Your task to perform on an android device: turn vacation reply on in the gmail app Image 0: 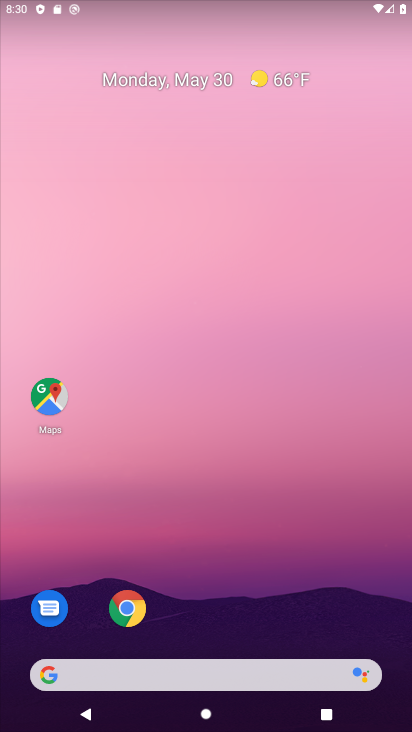
Step 0: drag from (234, 721) to (237, 23)
Your task to perform on an android device: turn vacation reply on in the gmail app Image 1: 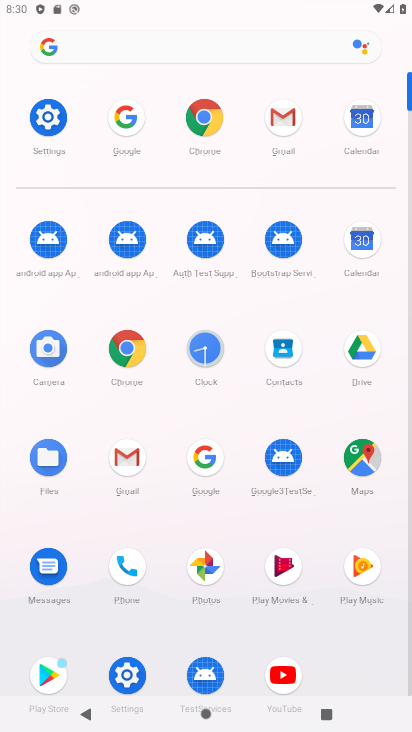
Step 1: click (128, 457)
Your task to perform on an android device: turn vacation reply on in the gmail app Image 2: 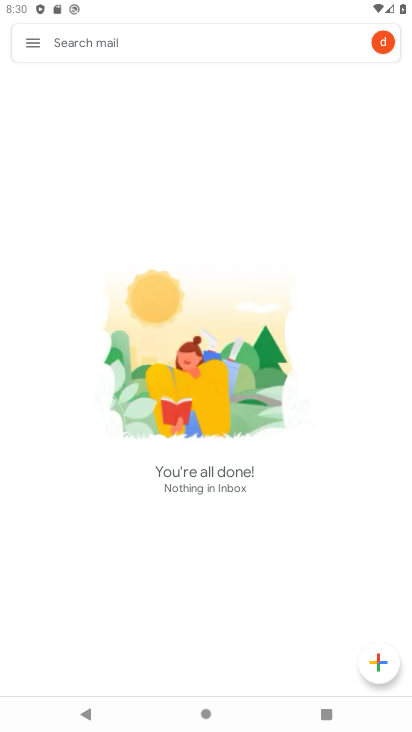
Step 2: click (33, 43)
Your task to perform on an android device: turn vacation reply on in the gmail app Image 3: 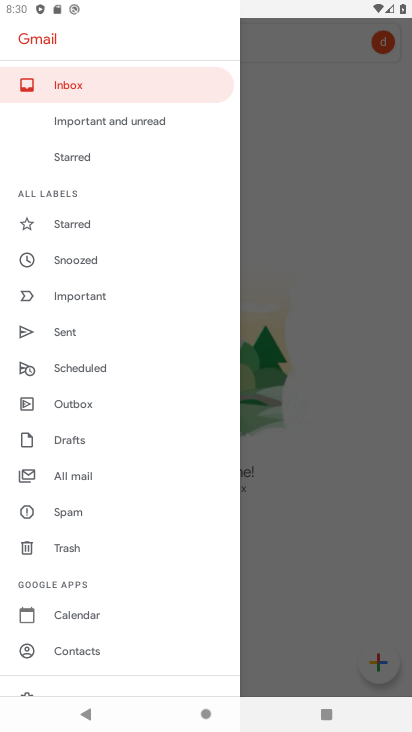
Step 3: drag from (93, 616) to (91, 172)
Your task to perform on an android device: turn vacation reply on in the gmail app Image 4: 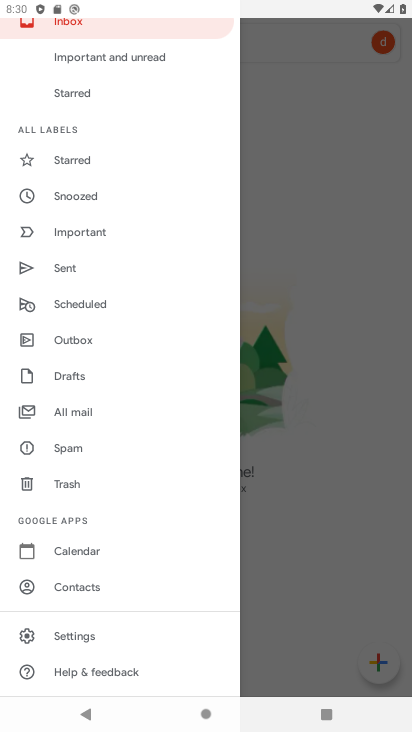
Step 4: click (54, 634)
Your task to perform on an android device: turn vacation reply on in the gmail app Image 5: 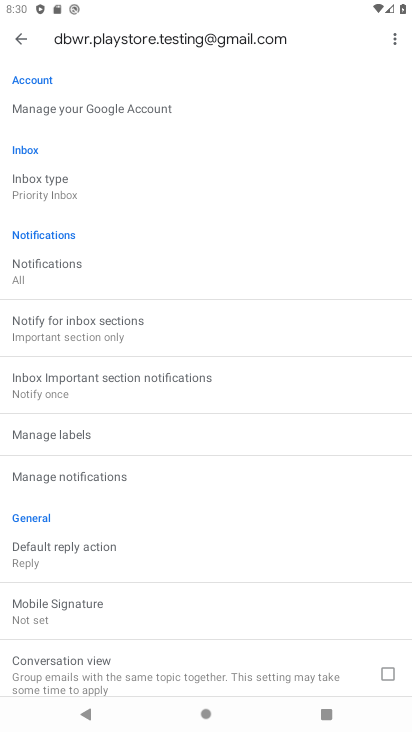
Step 5: drag from (119, 659) to (121, 285)
Your task to perform on an android device: turn vacation reply on in the gmail app Image 6: 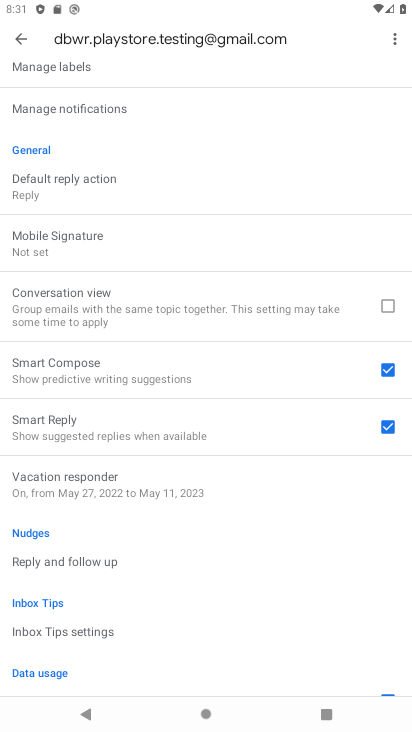
Step 6: click (71, 478)
Your task to perform on an android device: turn vacation reply on in the gmail app Image 7: 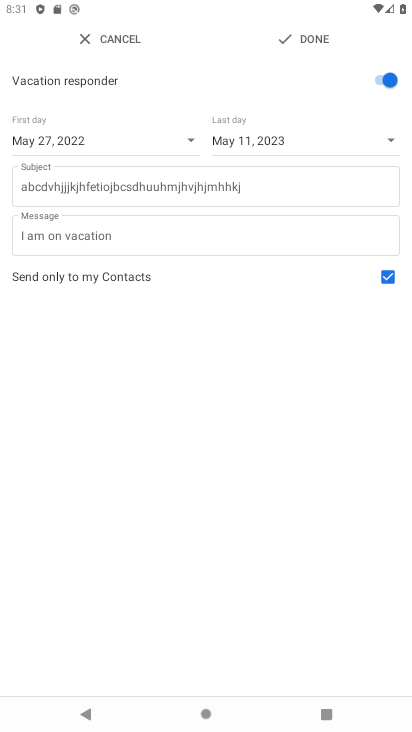
Step 7: task complete